Your task to perform on an android device: Check the news Image 0: 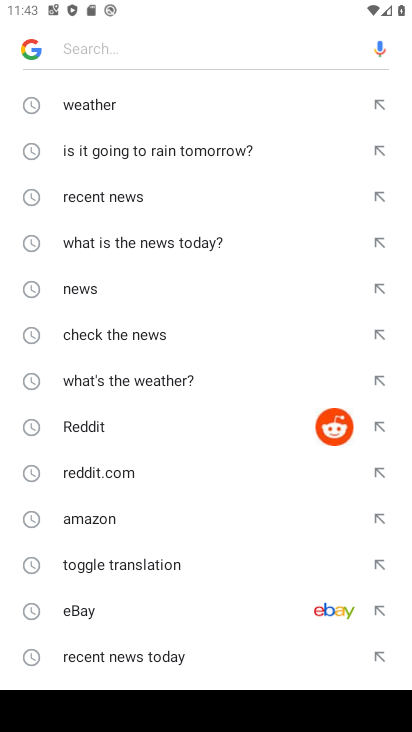
Step 0: press home button
Your task to perform on an android device: Check the news Image 1: 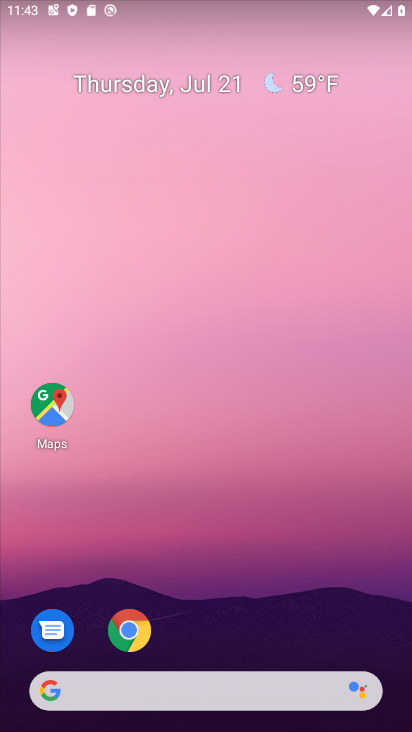
Step 1: drag from (183, 670) to (194, 364)
Your task to perform on an android device: Check the news Image 2: 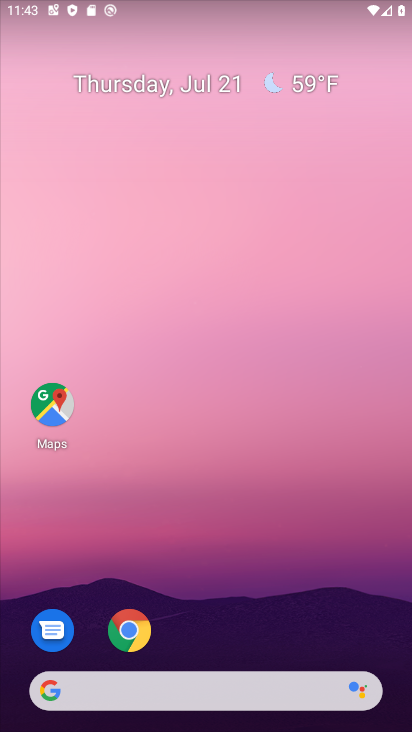
Step 2: drag from (220, 677) to (267, 271)
Your task to perform on an android device: Check the news Image 3: 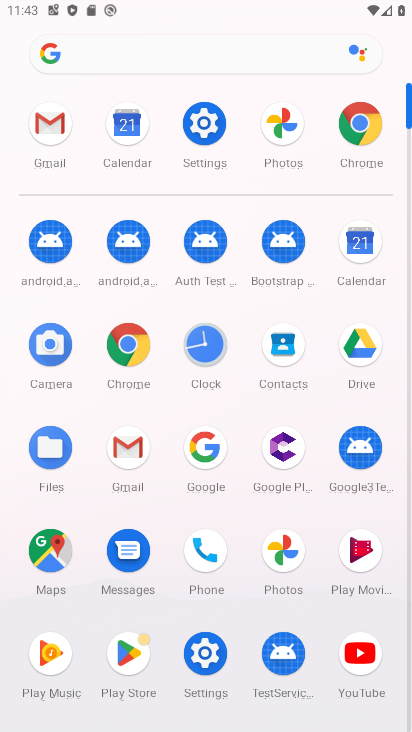
Step 3: click (204, 450)
Your task to perform on an android device: Check the news Image 4: 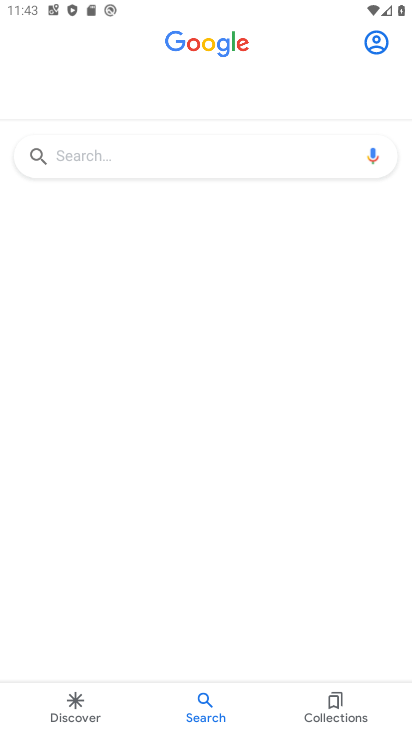
Step 4: click (110, 151)
Your task to perform on an android device: Check the news Image 5: 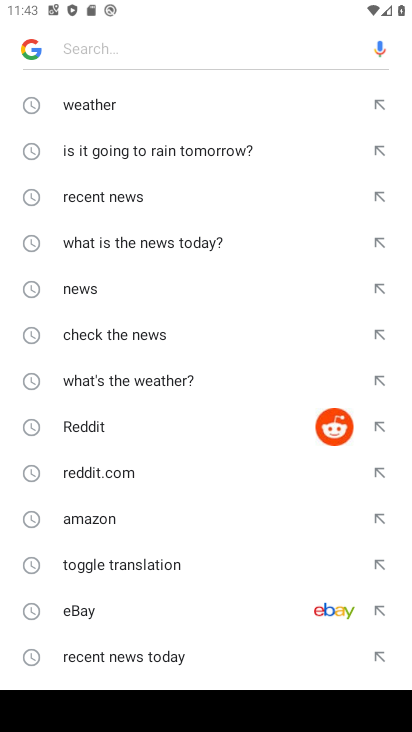
Step 5: click (104, 282)
Your task to perform on an android device: Check the news Image 6: 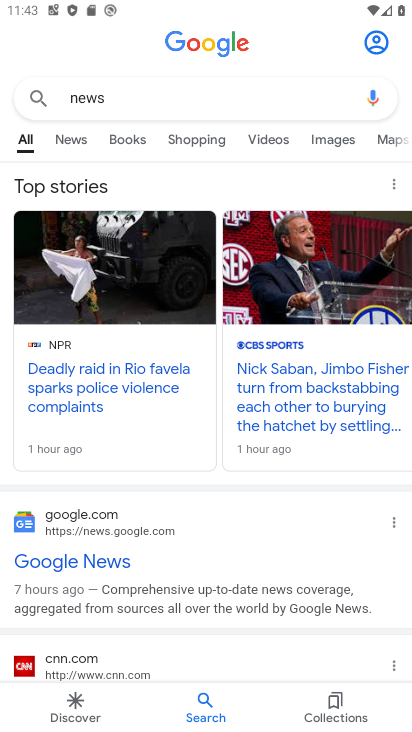
Step 6: task complete